Your task to perform on an android device: delete browsing data in the chrome app Image 0: 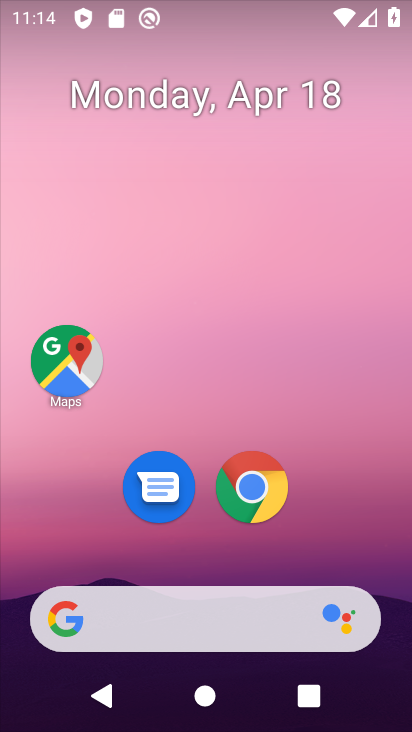
Step 0: click (250, 491)
Your task to perform on an android device: delete browsing data in the chrome app Image 1: 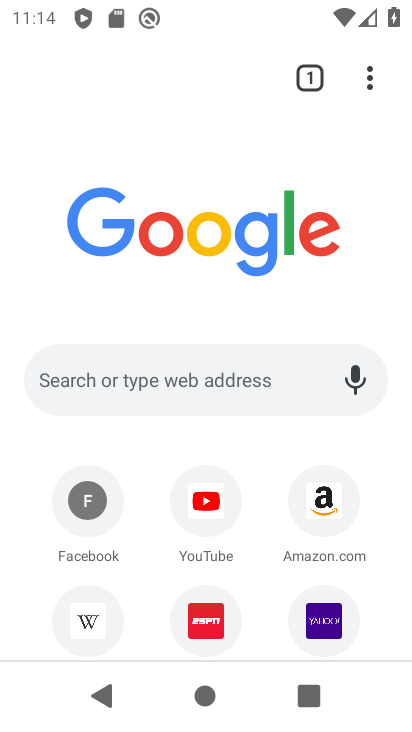
Step 1: click (361, 77)
Your task to perform on an android device: delete browsing data in the chrome app Image 2: 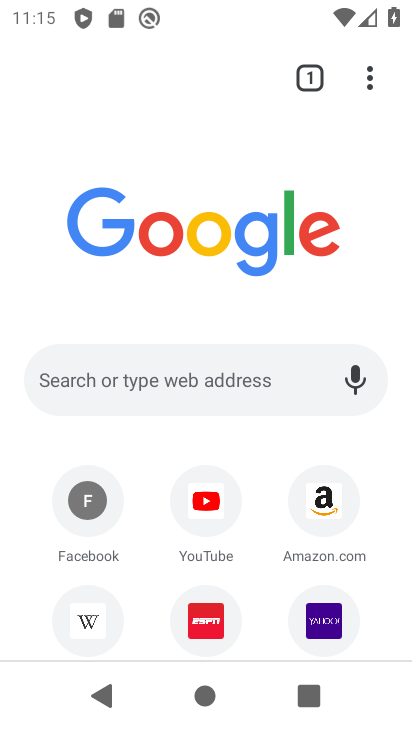
Step 2: click (363, 84)
Your task to perform on an android device: delete browsing data in the chrome app Image 3: 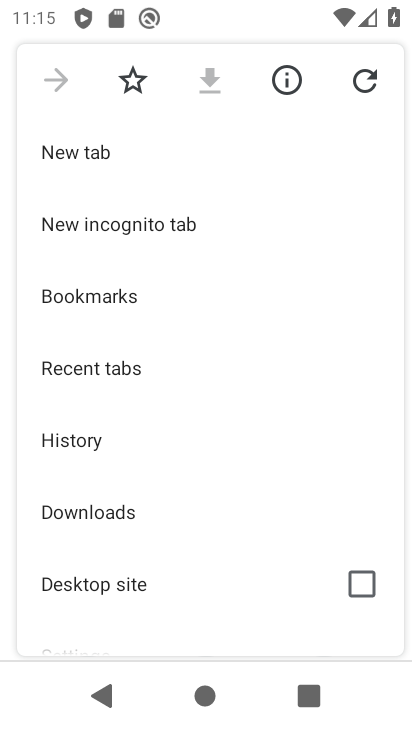
Step 3: click (86, 440)
Your task to perform on an android device: delete browsing data in the chrome app Image 4: 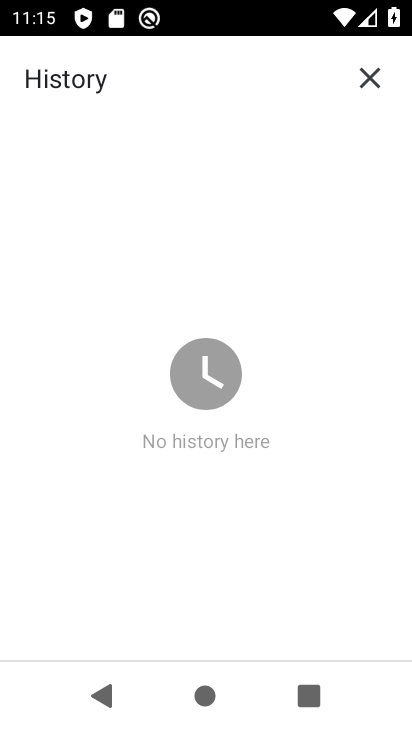
Step 4: task complete